Your task to perform on an android device: find photos in the google photos app Image 0: 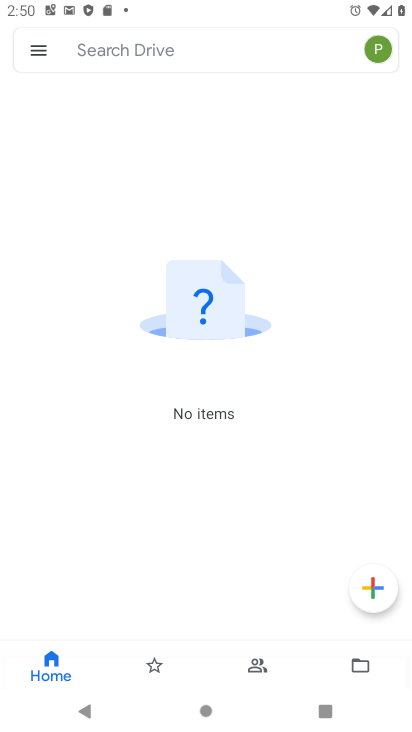
Step 0: press home button
Your task to perform on an android device: find photos in the google photos app Image 1: 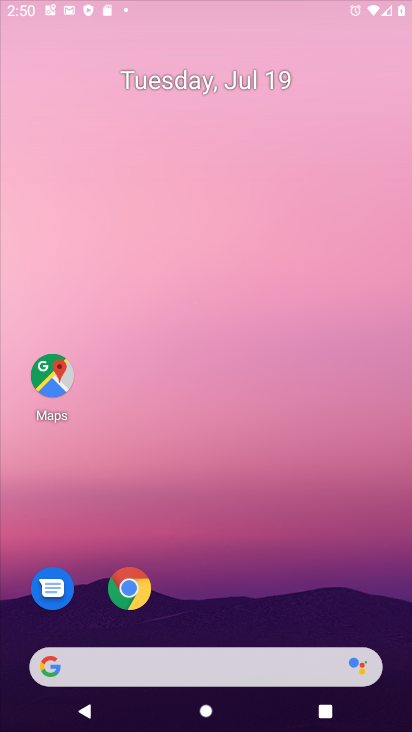
Step 1: drag from (349, 645) to (253, 157)
Your task to perform on an android device: find photos in the google photos app Image 2: 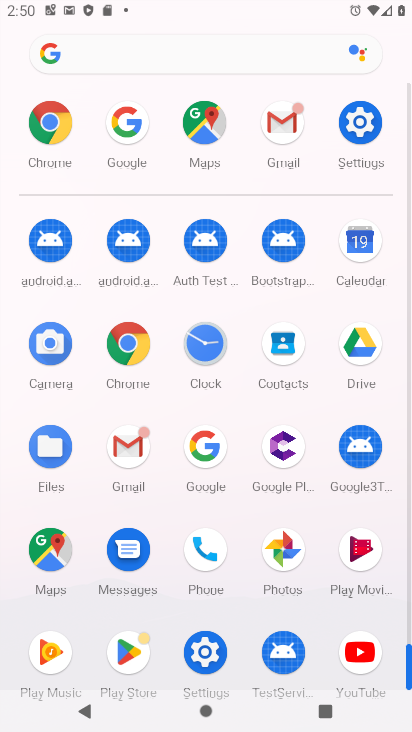
Step 2: click (282, 534)
Your task to perform on an android device: find photos in the google photos app Image 3: 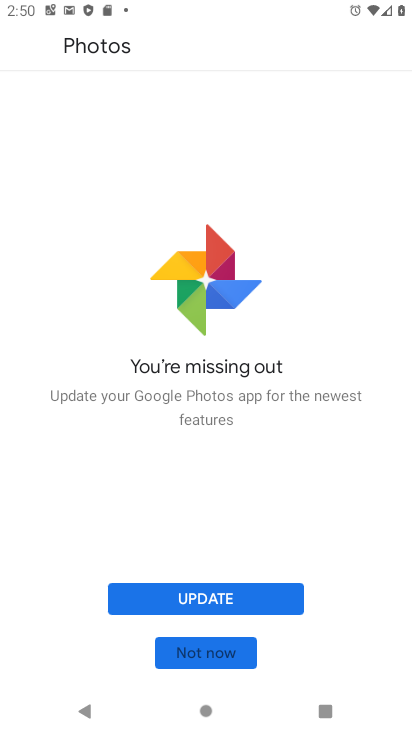
Step 3: task complete